Your task to perform on an android device: turn off priority inbox in the gmail app Image 0: 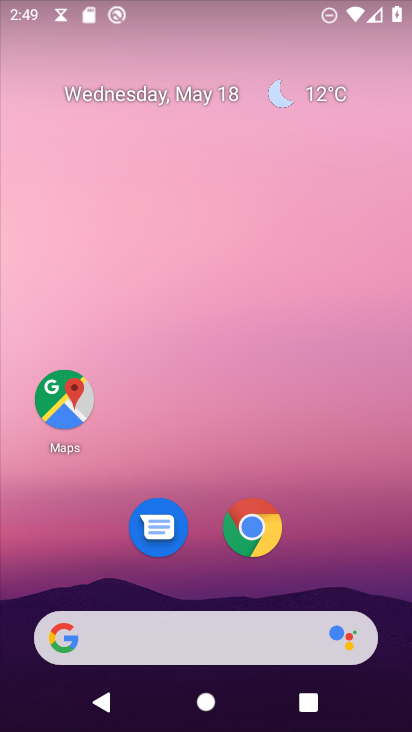
Step 0: drag from (343, 547) to (189, 7)
Your task to perform on an android device: turn off priority inbox in the gmail app Image 1: 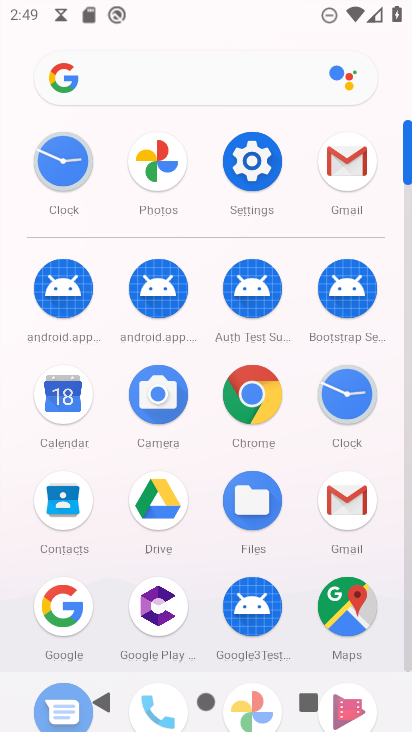
Step 1: click (350, 485)
Your task to perform on an android device: turn off priority inbox in the gmail app Image 2: 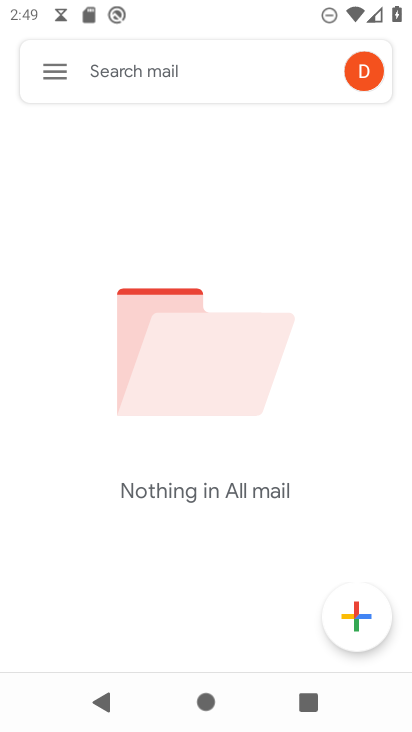
Step 2: click (58, 89)
Your task to perform on an android device: turn off priority inbox in the gmail app Image 3: 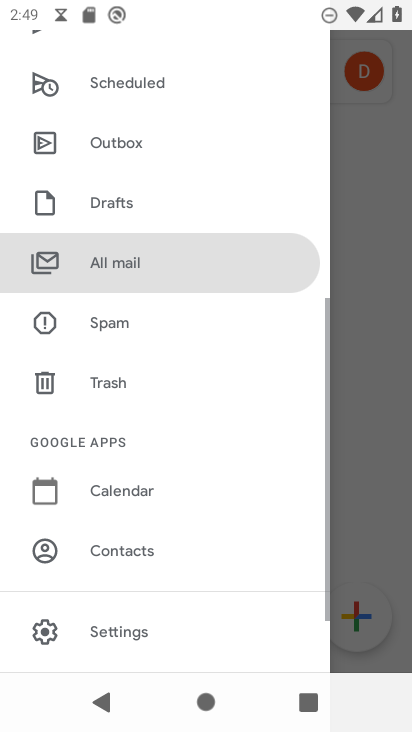
Step 3: click (171, 628)
Your task to perform on an android device: turn off priority inbox in the gmail app Image 4: 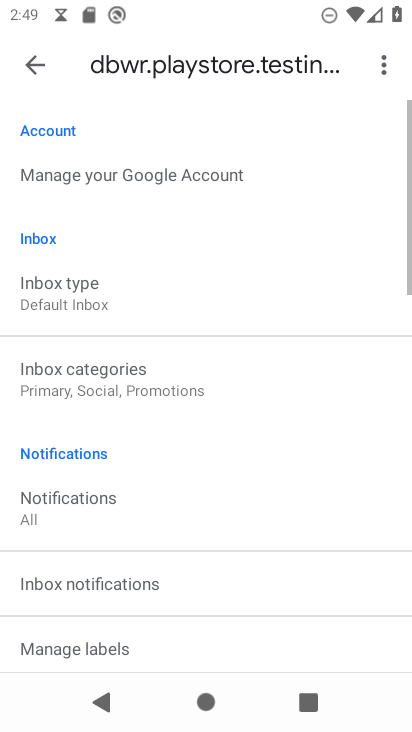
Step 4: click (101, 290)
Your task to perform on an android device: turn off priority inbox in the gmail app Image 5: 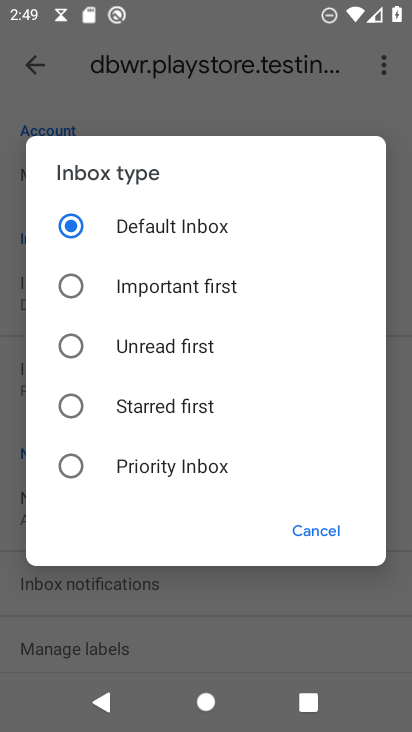
Step 5: task complete